Your task to perform on an android device: Open the phone app and click the voicemail tab. Image 0: 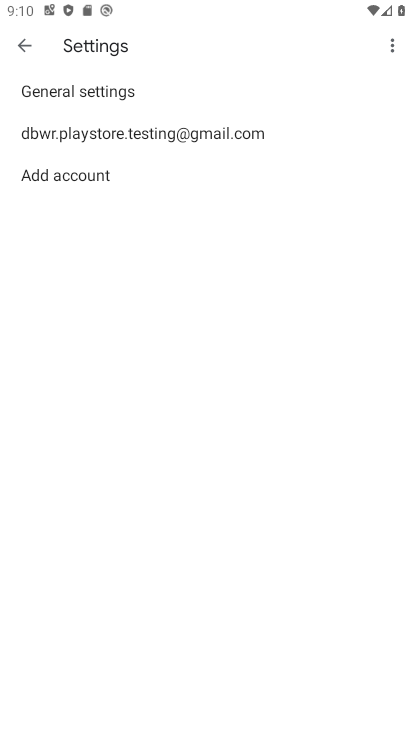
Step 0: press home button
Your task to perform on an android device: Open the phone app and click the voicemail tab. Image 1: 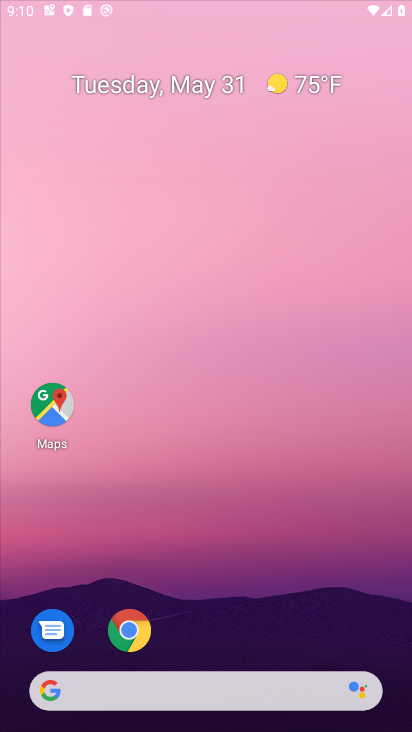
Step 1: drag from (217, 649) to (176, 208)
Your task to perform on an android device: Open the phone app and click the voicemail tab. Image 2: 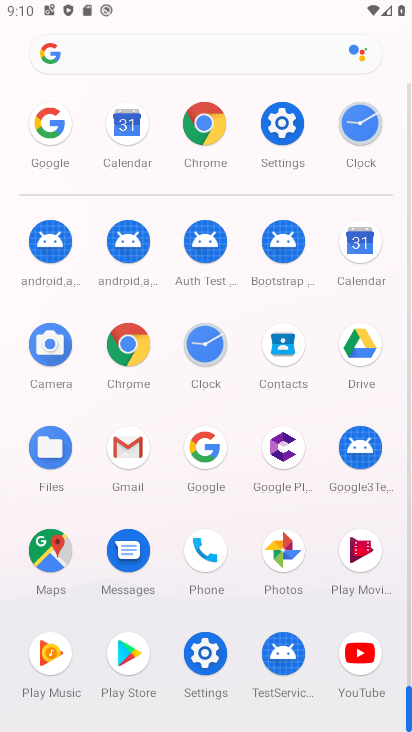
Step 2: click (216, 560)
Your task to perform on an android device: Open the phone app and click the voicemail tab. Image 3: 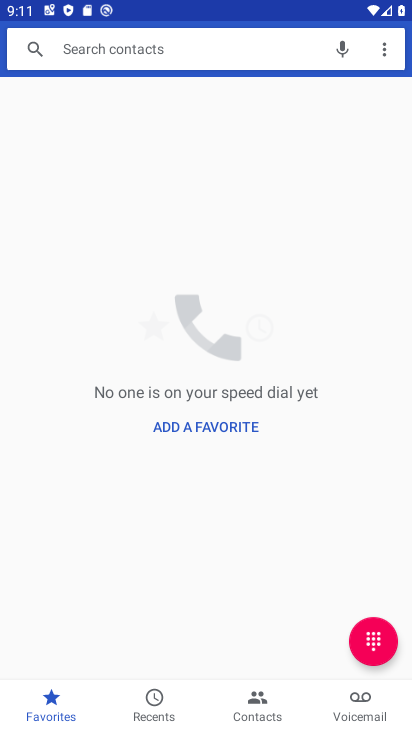
Step 3: click (349, 713)
Your task to perform on an android device: Open the phone app and click the voicemail tab. Image 4: 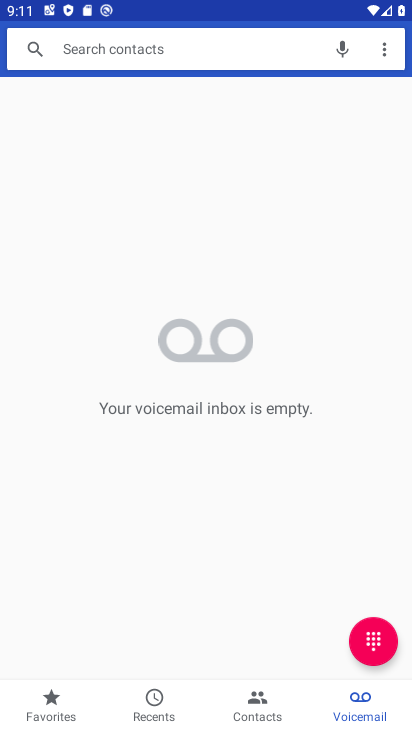
Step 4: task complete